Your task to perform on an android device: turn off sleep mode Image 0: 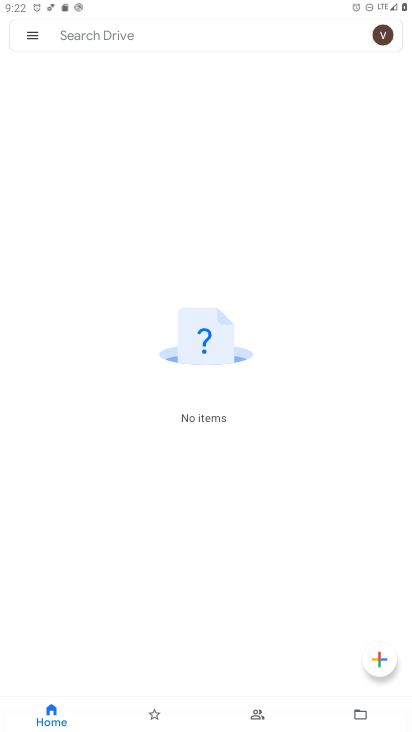
Step 0: press home button
Your task to perform on an android device: turn off sleep mode Image 1: 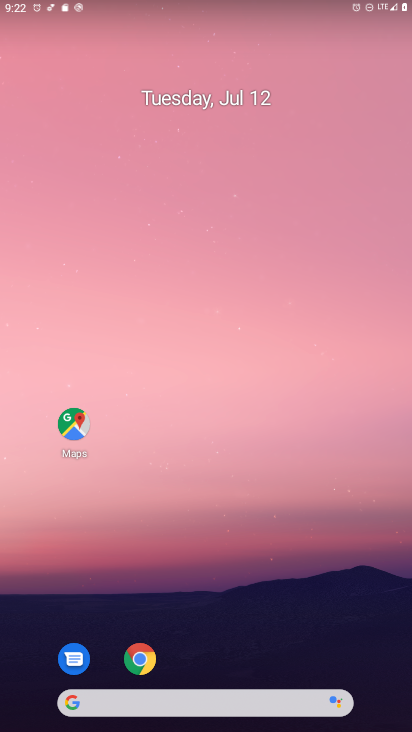
Step 1: drag from (216, 702) to (252, 226)
Your task to perform on an android device: turn off sleep mode Image 2: 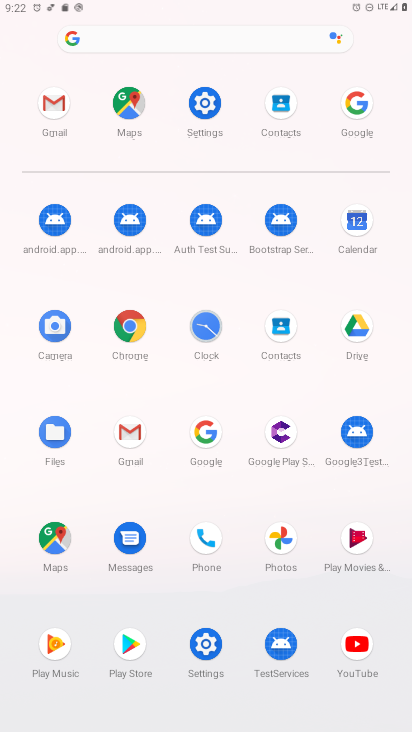
Step 2: click (206, 104)
Your task to perform on an android device: turn off sleep mode Image 3: 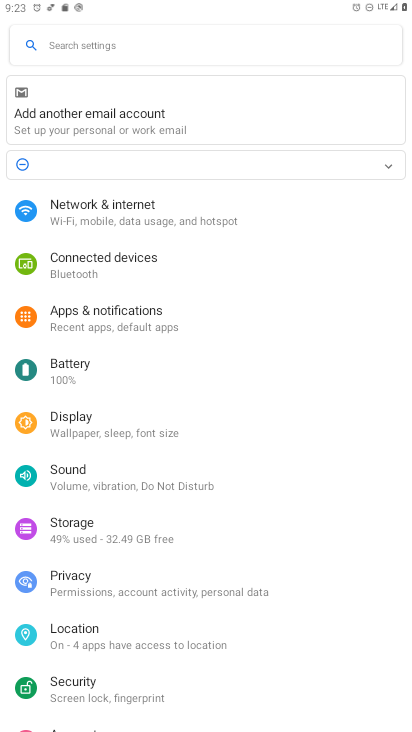
Step 3: click (133, 432)
Your task to perform on an android device: turn off sleep mode Image 4: 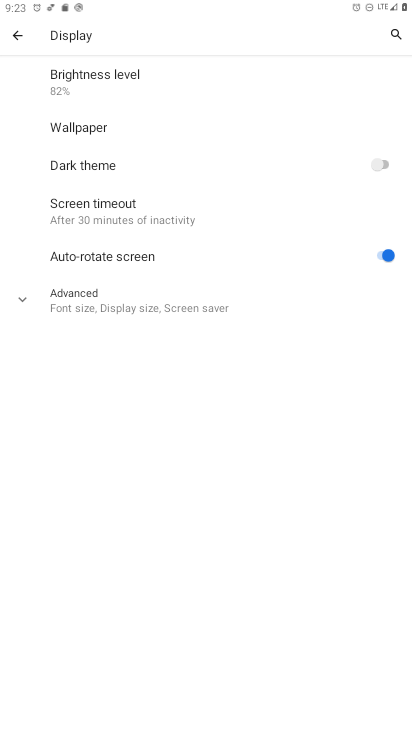
Step 4: click (160, 220)
Your task to perform on an android device: turn off sleep mode Image 5: 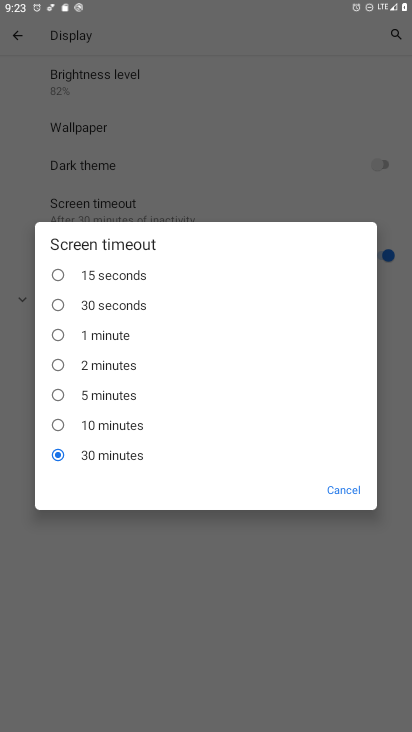
Step 5: click (348, 491)
Your task to perform on an android device: turn off sleep mode Image 6: 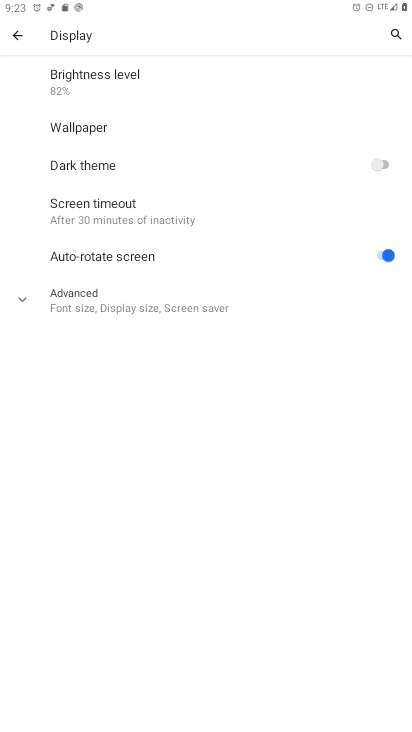
Step 6: click (163, 312)
Your task to perform on an android device: turn off sleep mode Image 7: 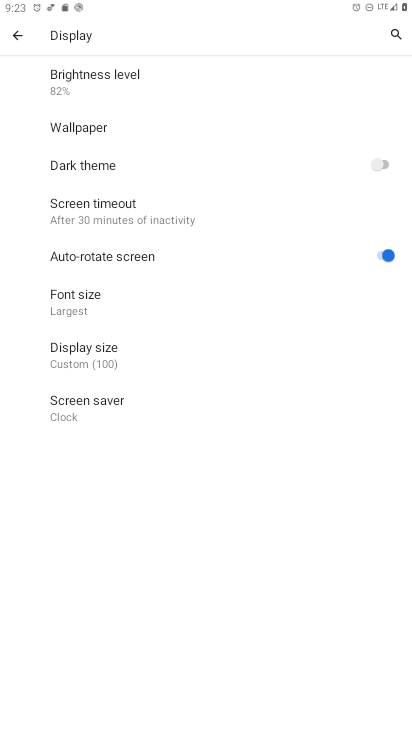
Step 7: click (88, 406)
Your task to perform on an android device: turn off sleep mode Image 8: 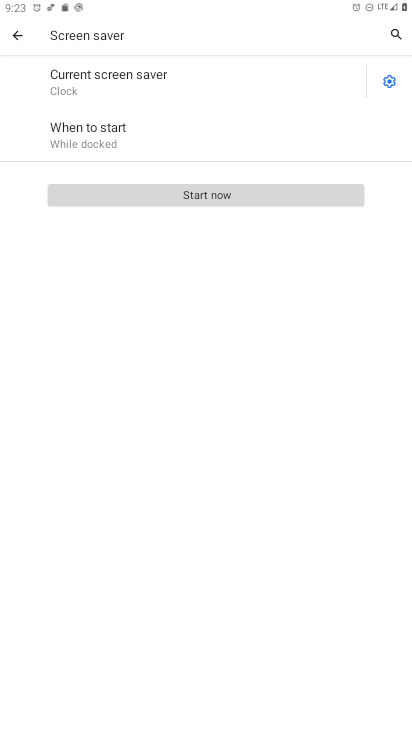
Step 8: click (143, 142)
Your task to perform on an android device: turn off sleep mode Image 9: 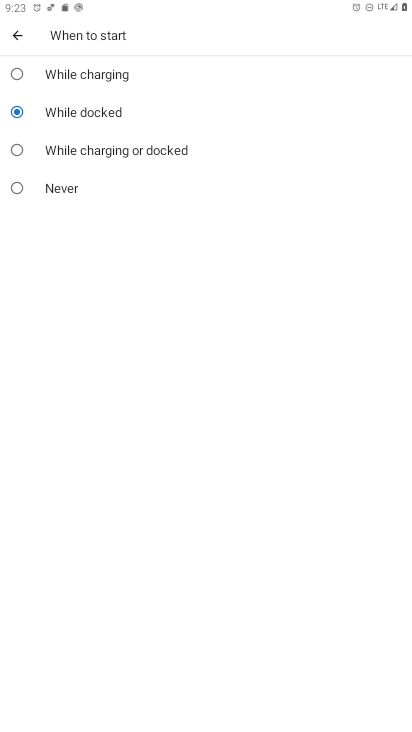
Step 9: press back button
Your task to perform on an android device: turn off sleep mode Image 10: 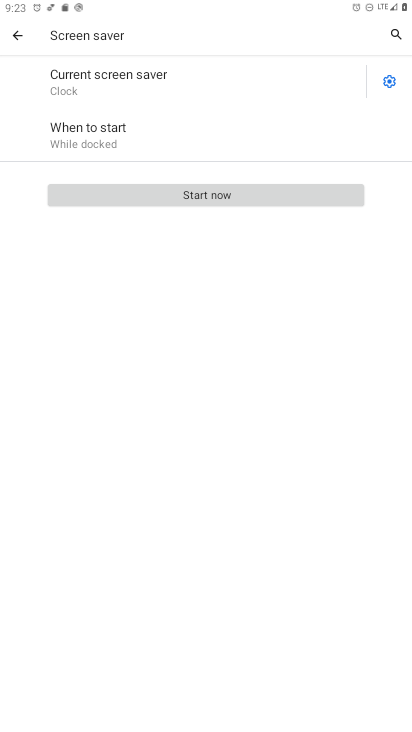
Step 10: click (107, 76)
Your task to perform on an android device: turn off sleep mode Image 11: 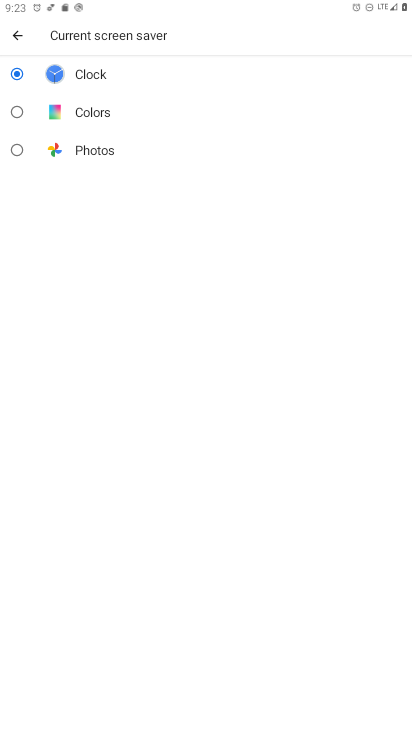
Step 11: press back button
Your task to perform on an android device: turn off sleep mode Image 12: 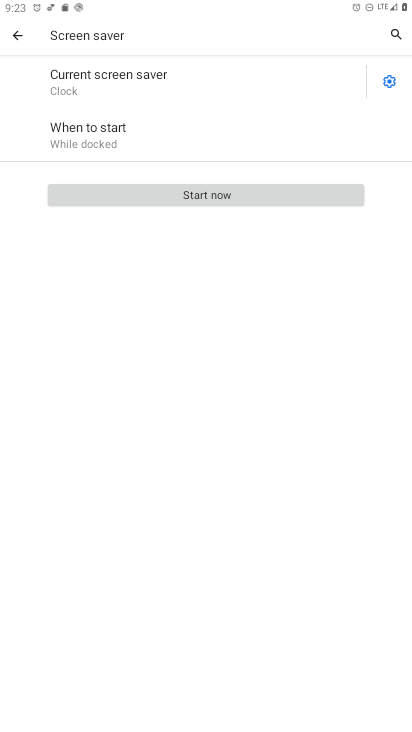
Step 12: click (391, 86)
Your task to perform on an android device: turn off sleep mode Image 13: 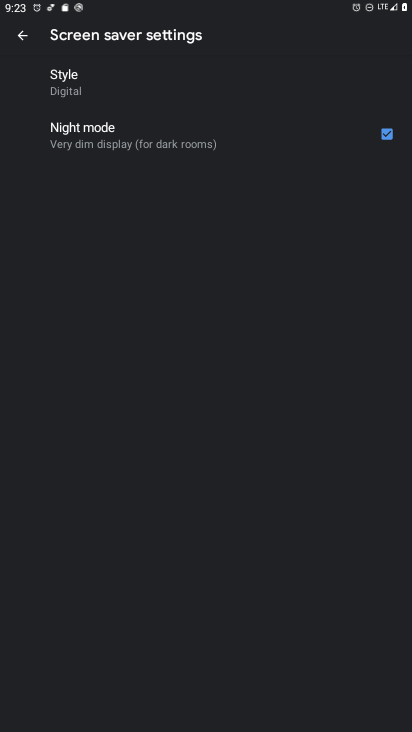
Step 13: click (159, 153)
Your task to perform on an android device: turn off sleep mode Image 14: 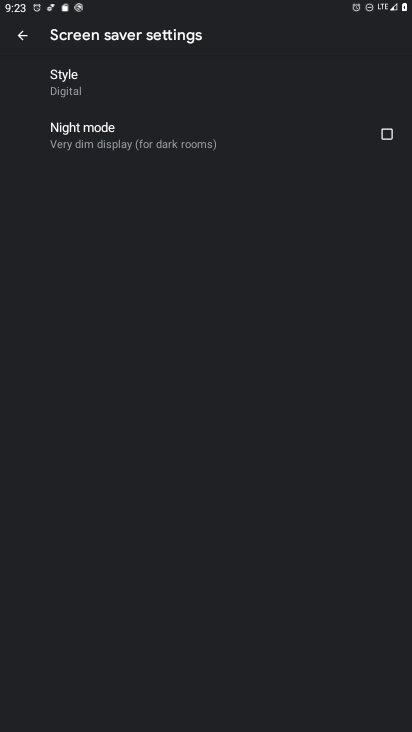
Step 14: task complete